Your task to perform on an android device: move a message to another label in the gmail app Image 0: 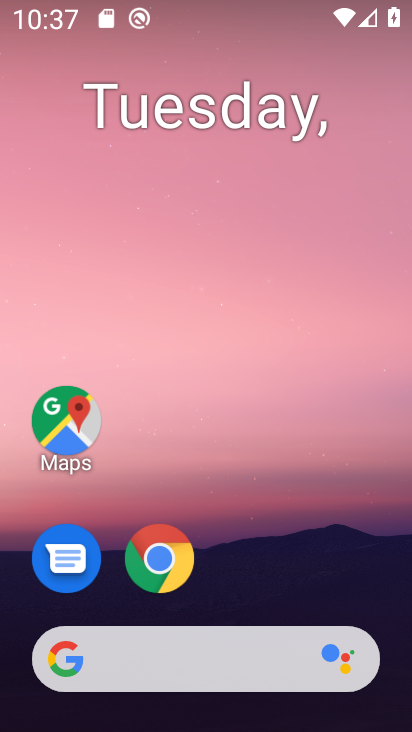
Step 0: drag from (364, 570) to (398, 84)
Your task to perform on an android device: move a message to another label in the gmail app Image 1: 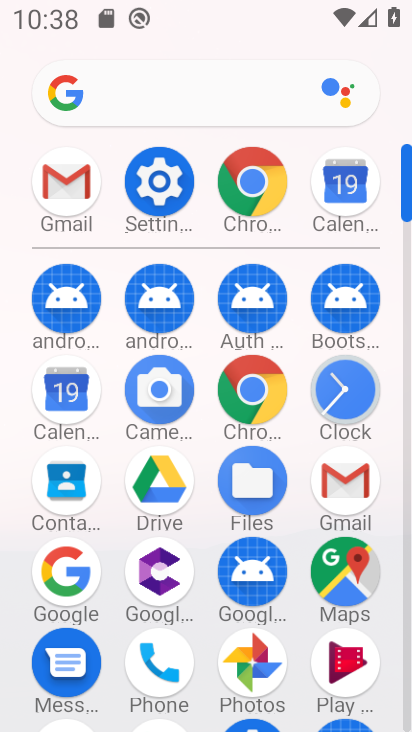
Step 1: click (350, 477)
Your task to perform on an android device: move a message to another label in the gmail app Image 2: 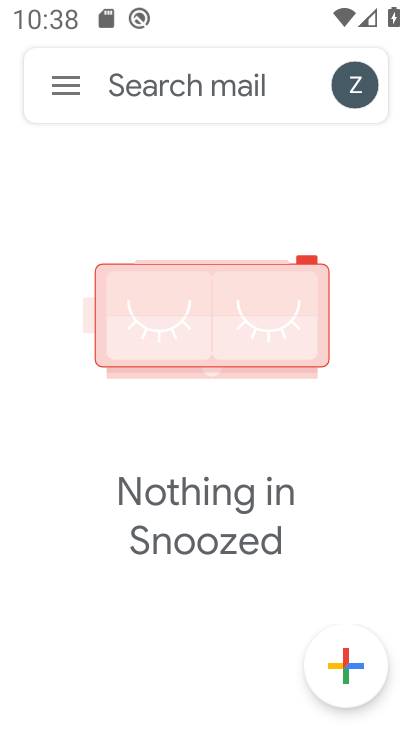
Step 2: click (70, 94)
Your task to perform on an android device: move a message to another label in the gmail app Image 3: 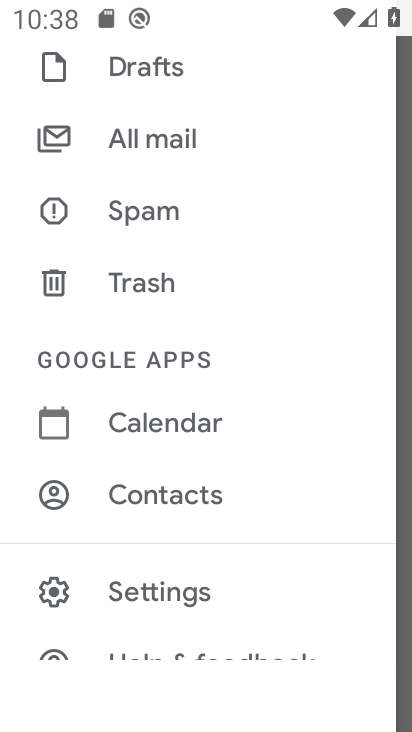
Step 3: click (158, 144)
Your task to perform on an android device: move a message to another label in the gmail app Image 4: 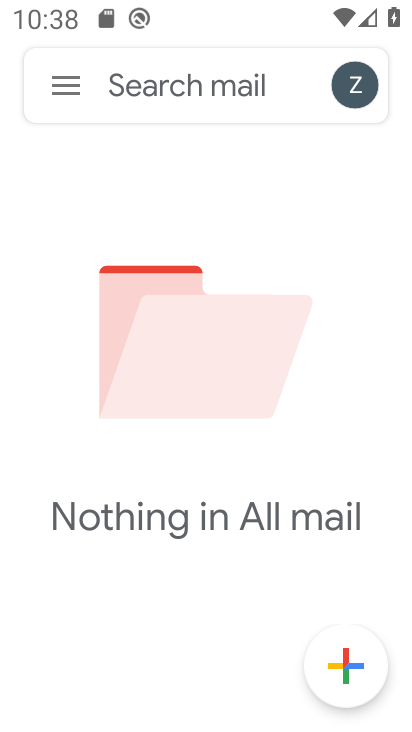
Step 4: task complete